Your task to perform on an android device: open app "Google Chat" (install if not already installed) Image 0: 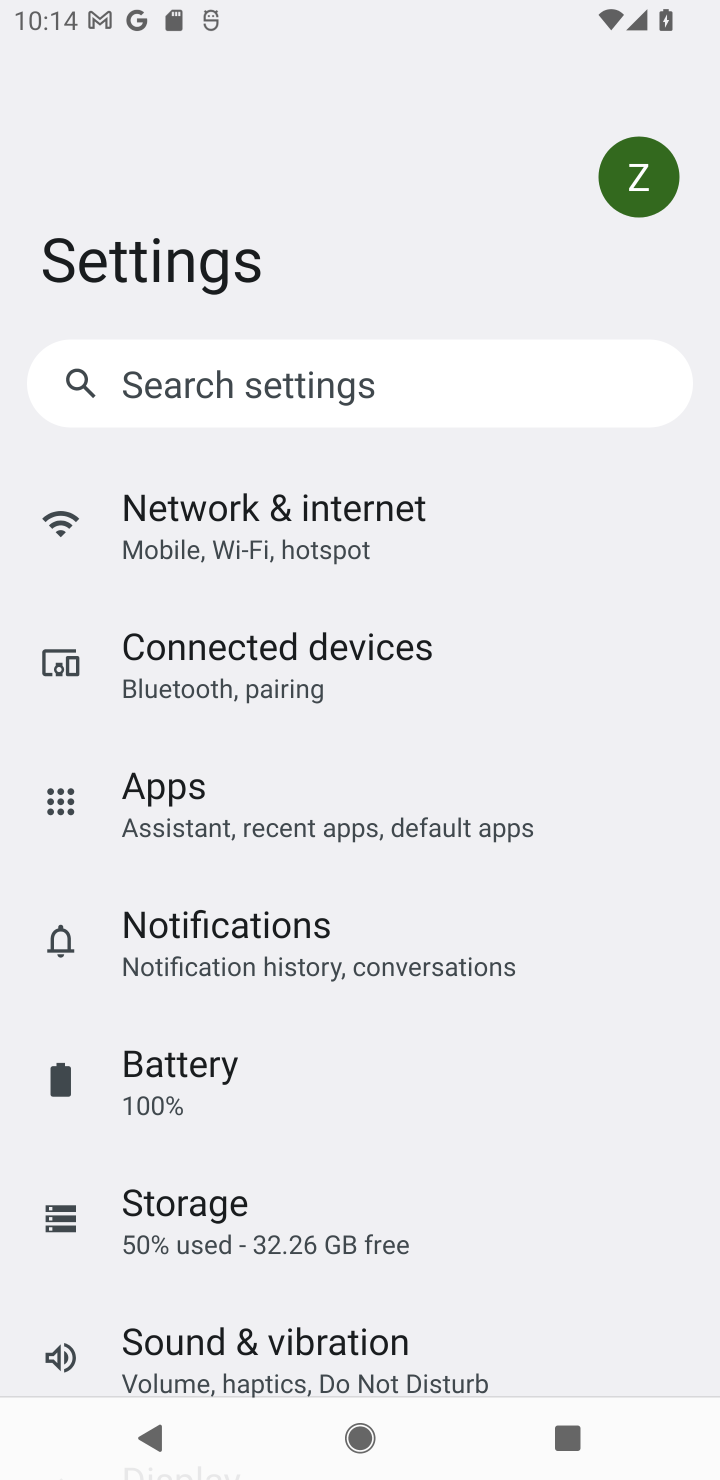
Step 0: press home button
Your task to perform on an android device: open app "Google Chat" (install if not already installed) Image 1: 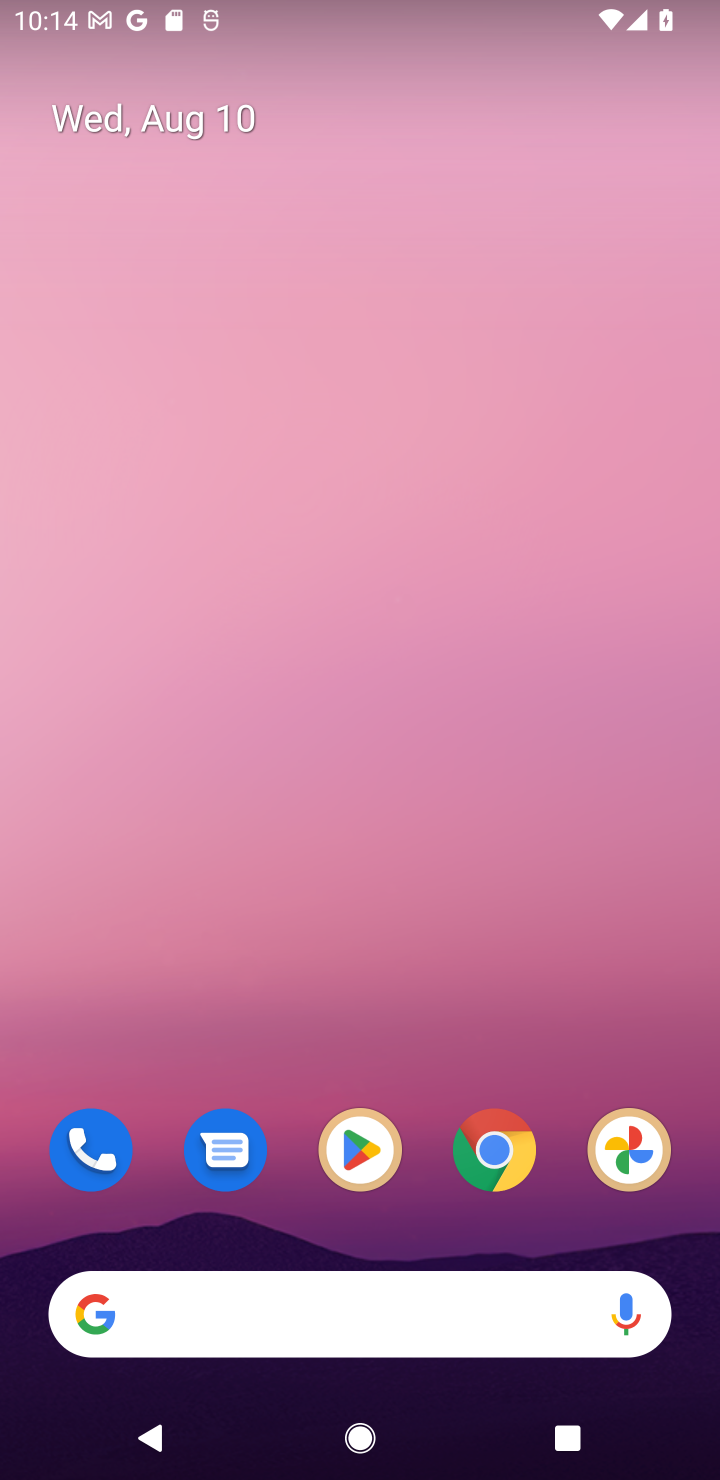
Step 1: click (330, 1137)
Your task to perform on an android device: open app "Google Chat" (install if not already installed) Image 2: 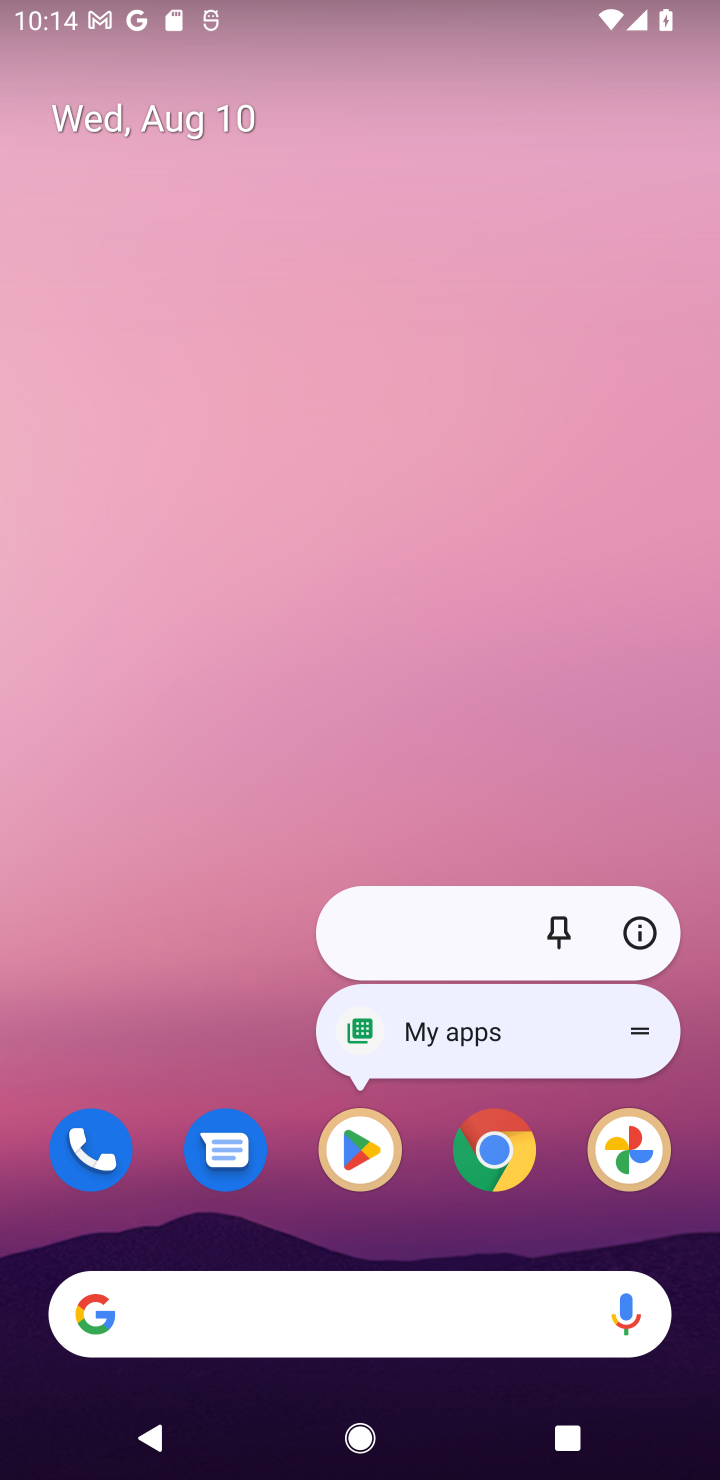
Step 2: click (352, 1144)
Your task to perform on an android device: open app "Google Chat" (install if not already installed) Image 3: 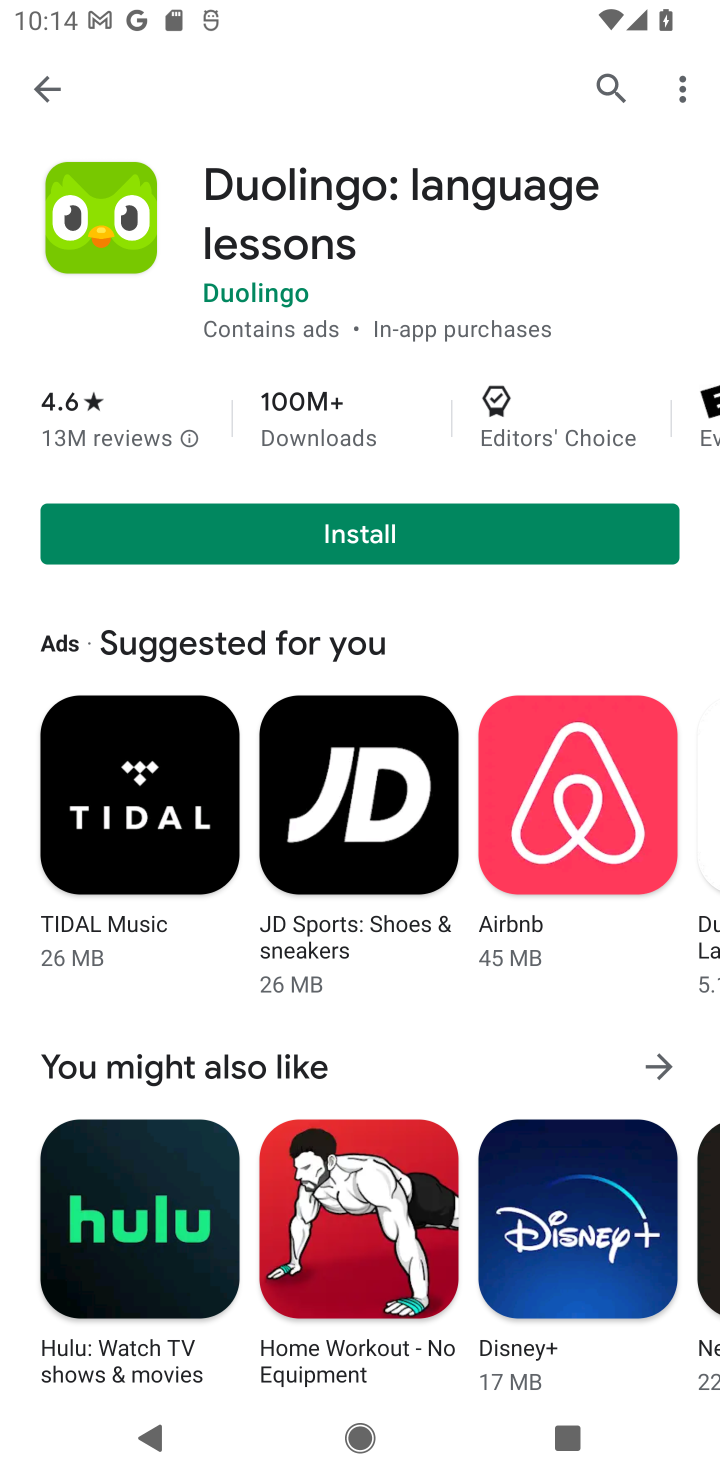
Step 3: click (602, 79)
Your task to perform on an android device: open app "Google Chat" (install if not already installed) Image 4: 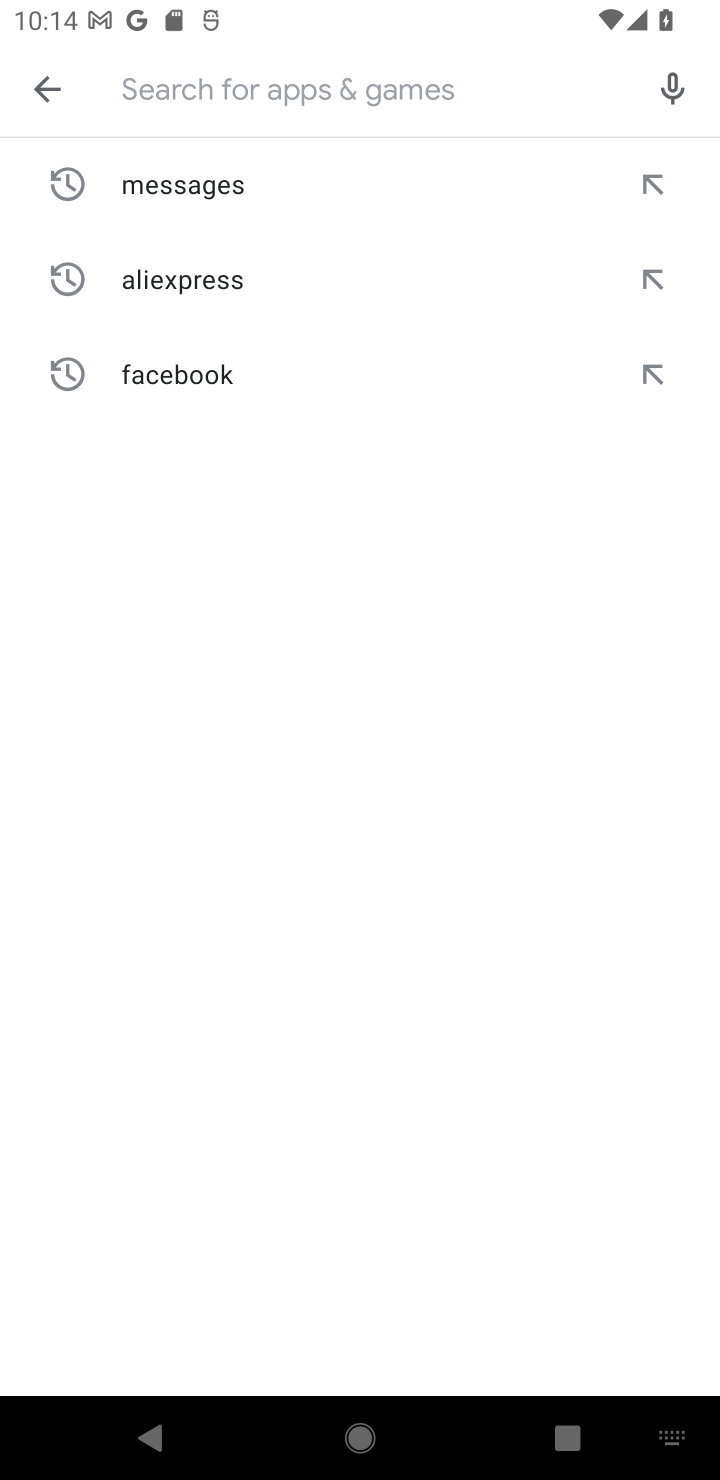
Step 4: type "Google Chat"
Your task to perform on an android device: open app "Google Chat" (install if not already installed) Image 5: 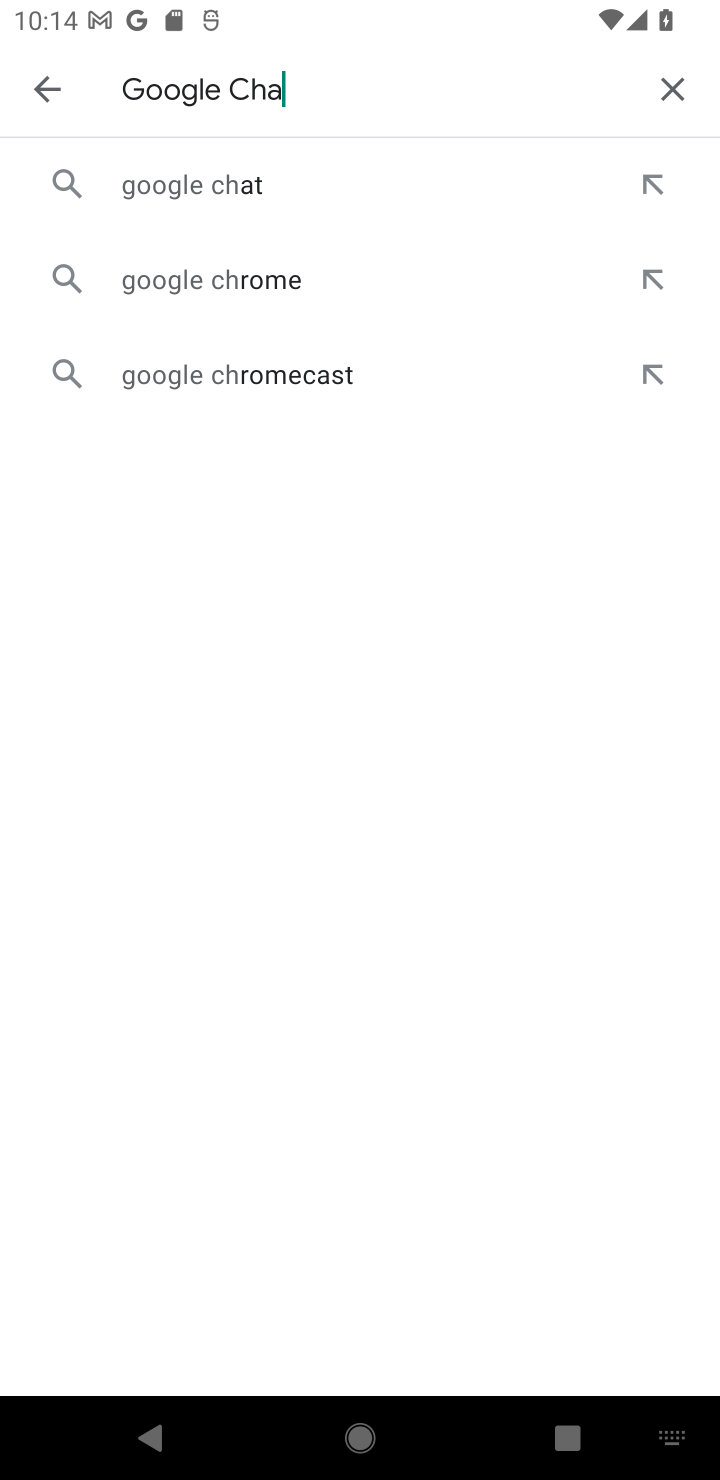
Step 5: type ""
Your task to perform on an android device: open app "Google Chat" (install if not already installed) Image 6: 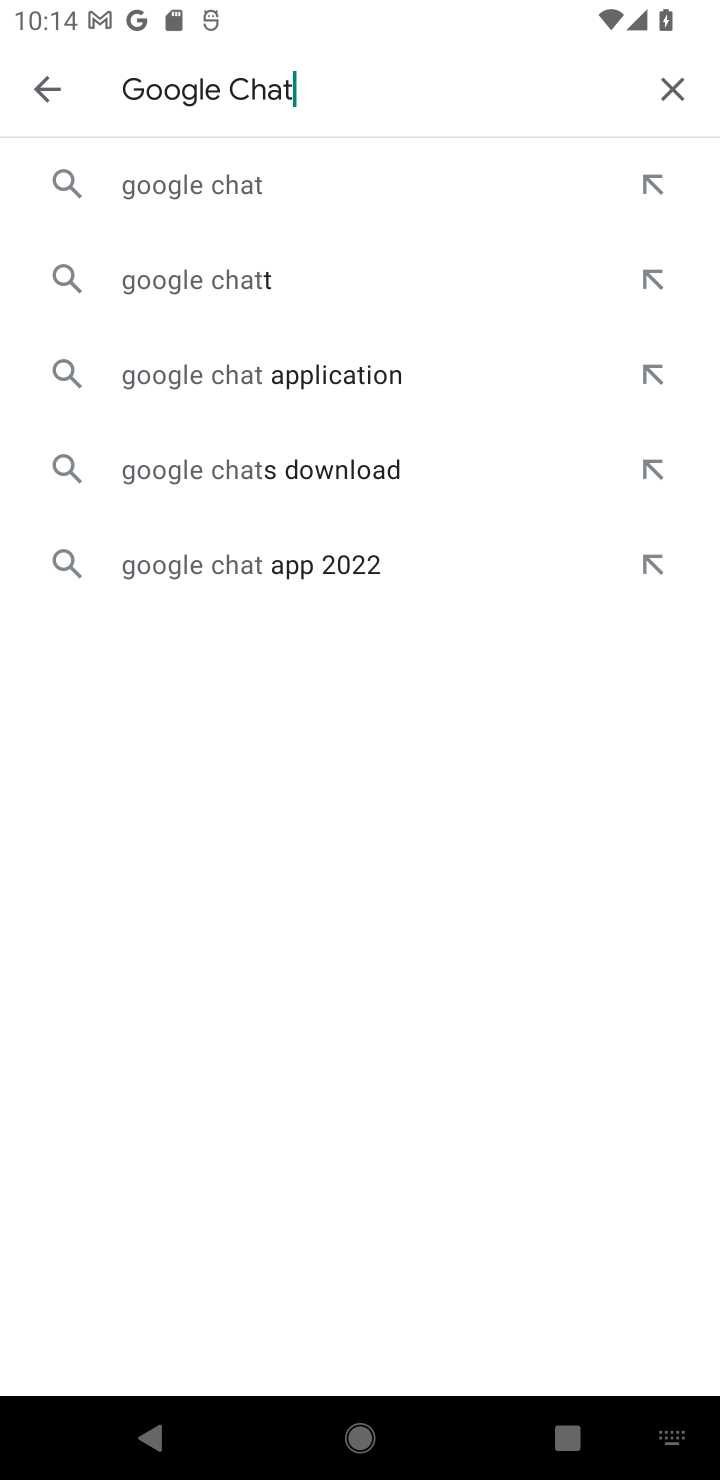
Step 6: click (278, 168)
Your task to perform on an android device: open app "Google Chat" (install if not already installed) Image 7: 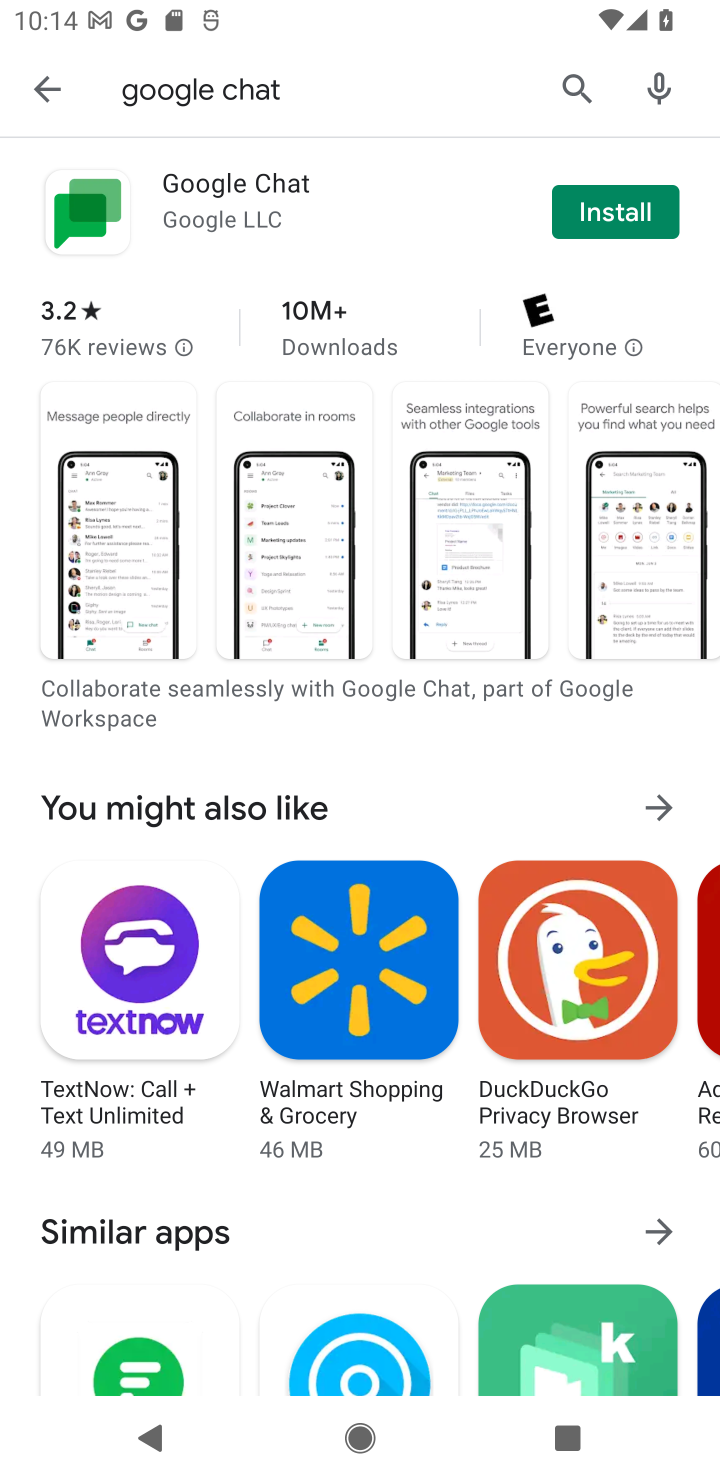
Step 7: click (587, 207)
Your task to perform on an android device: open app "Google Chat" (install if not already installed) Image 8: 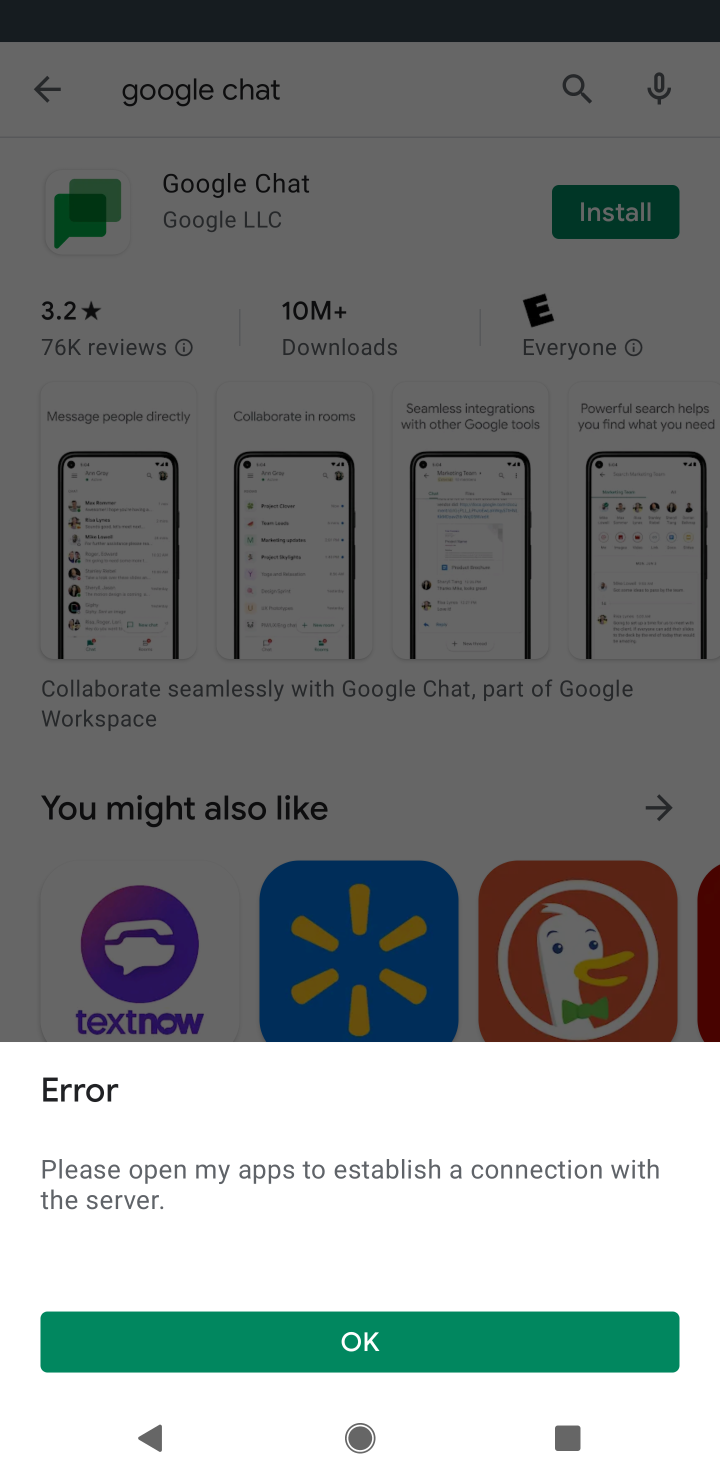
Step 8: click (341, 1334)
Your task to perform on an android device: open app "Google Chat" (install if not already installed) Image 9: 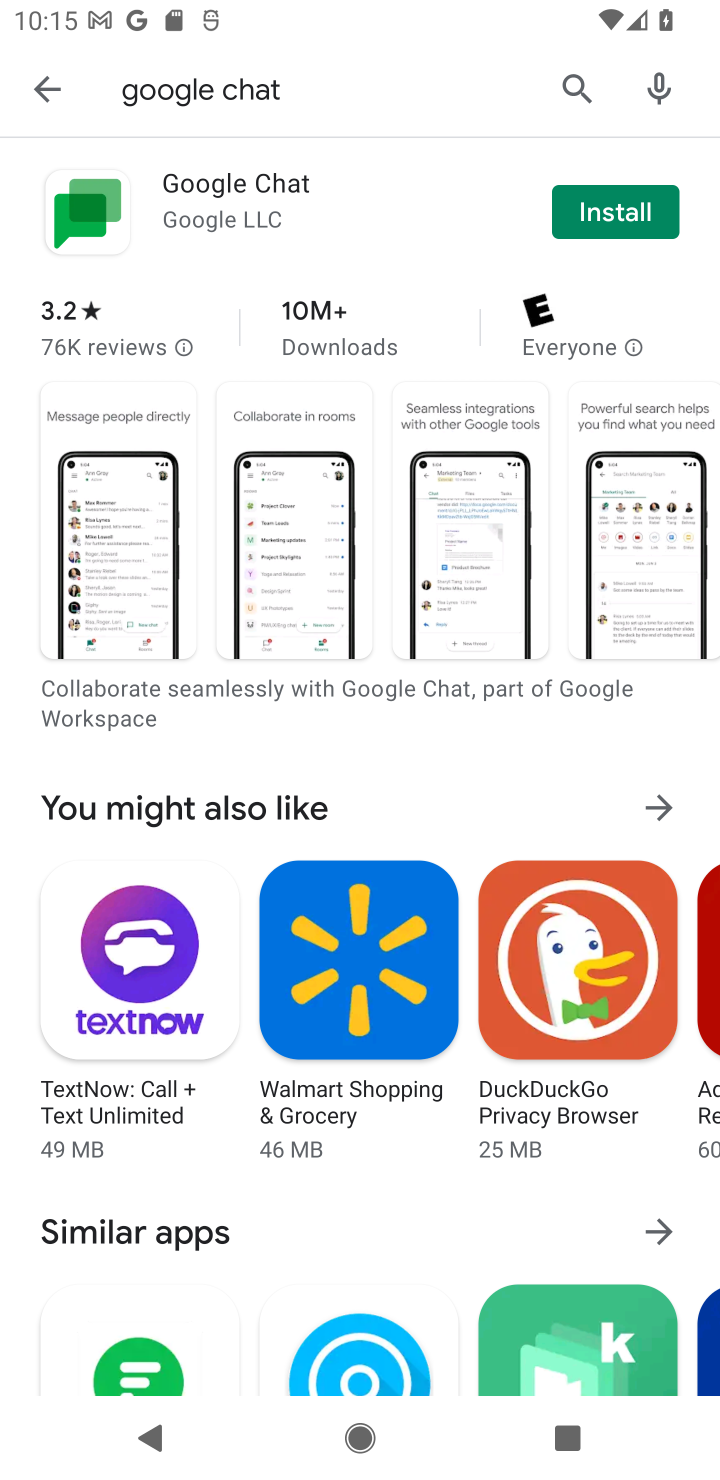
Step 9: click (587, 209)
Your task to perform on an android device: open app "Google Chat" (install if not already installed) Image 10: 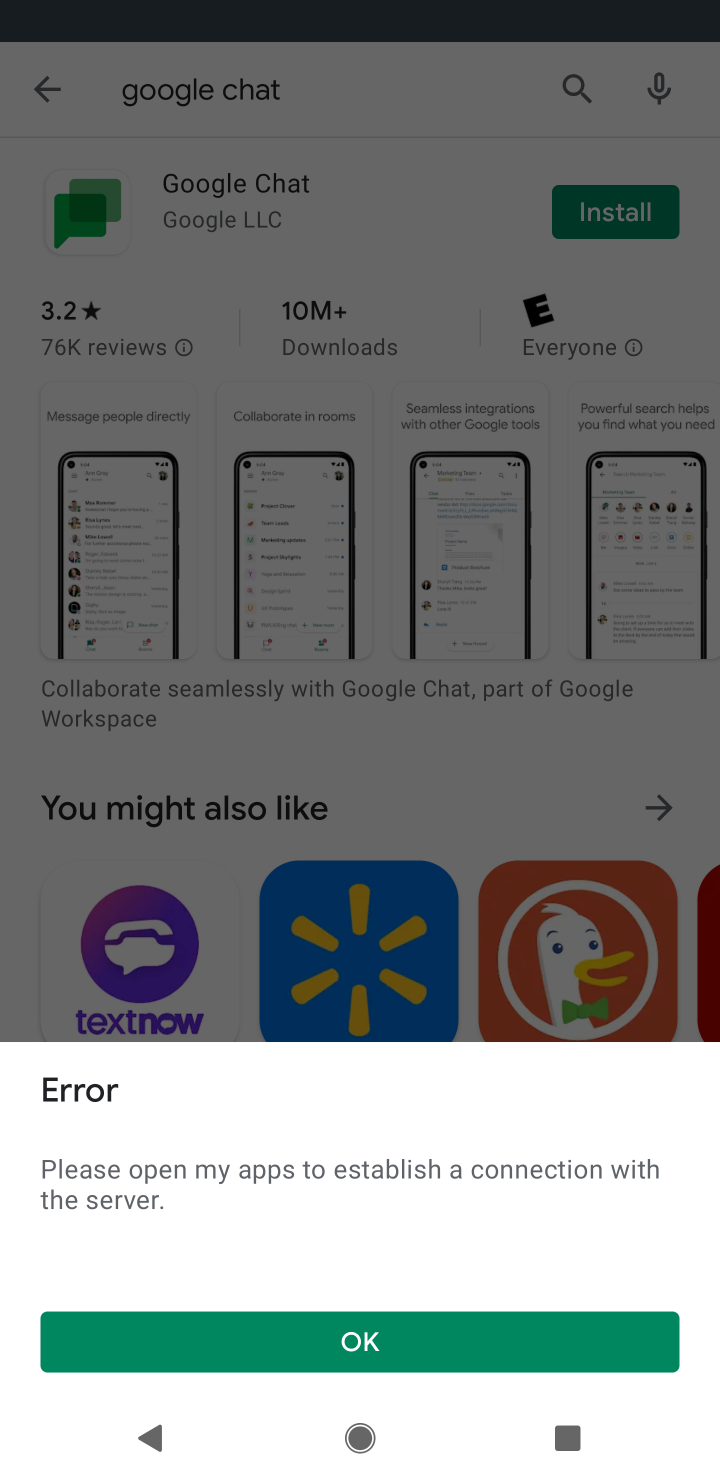
Step 10: task complete